Your task to perform on an android device: Open Google Chrome Image 0: 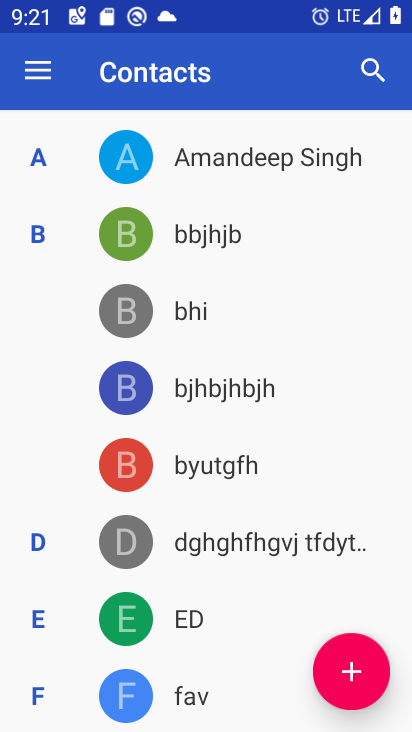
Step 0: press home button
Your task to perform on an android device: Open Google Chrome Image 1: 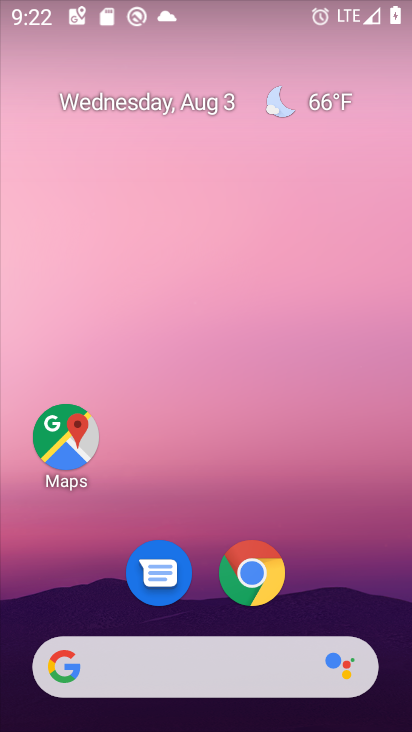
Step 1: click (262, 579)
Your task to perform on an android device: Open Google Chrome Image 2: 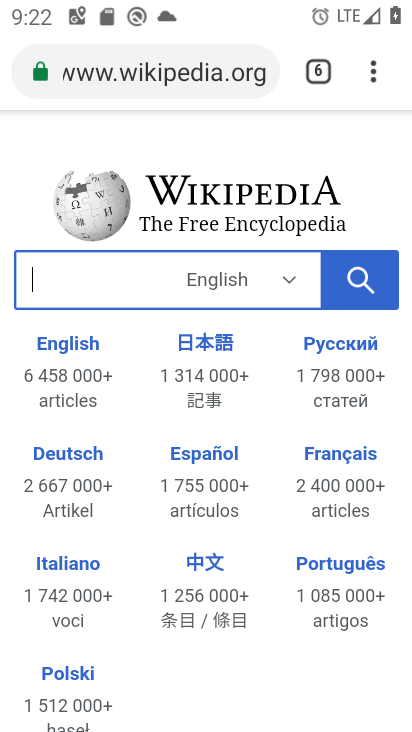
Step 2: task complete